Your task to perform on an android device: delete browsing data in the chrome app Image 0: 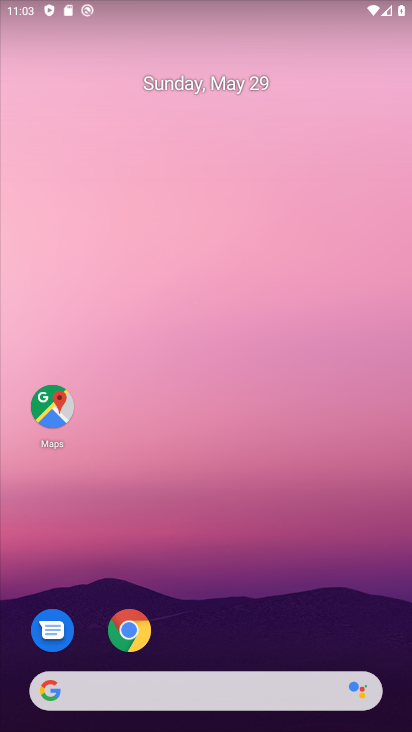
Step 0: click (123, 640)
Your task to perform on an android device: delete browsing data in the chrome app Image 1: 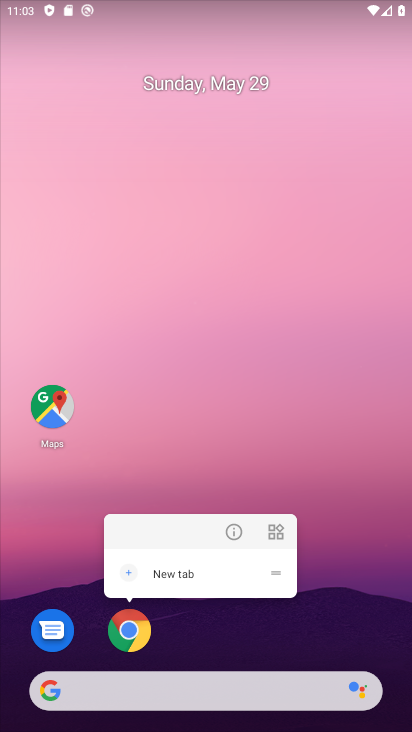
Step 1: click (111, 652)
Your task to perform on an android device: delete browsing data in the chrome app Image 2: 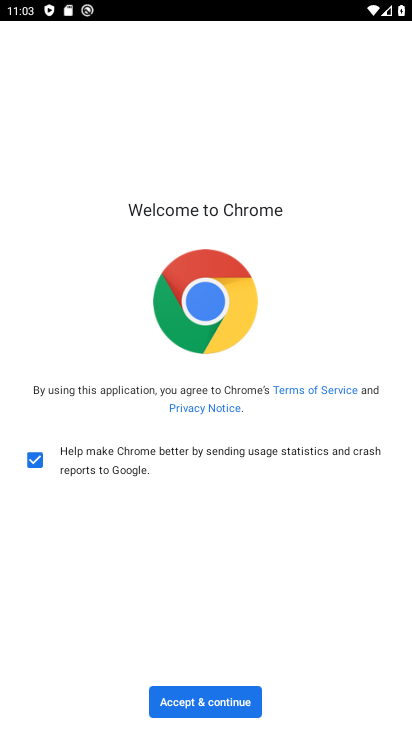
Step 2: click (219, 713)
Your task to perform on an android device: delete browsing data in the chrome app Image 3: 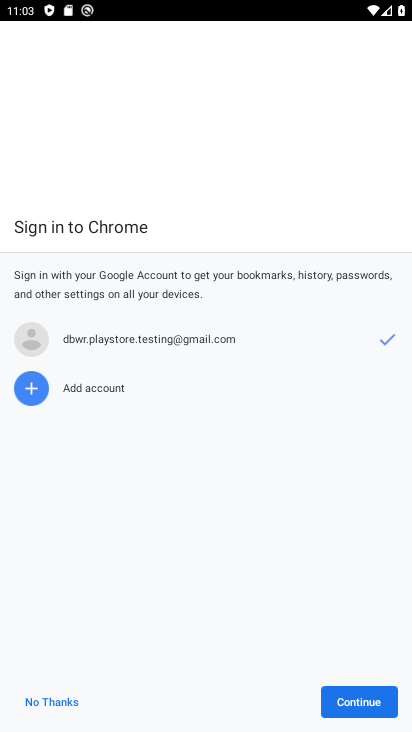
Step 3: click (360, 701)
Your task to perform on an android device: delete browsing data in the chrome app Image 4: 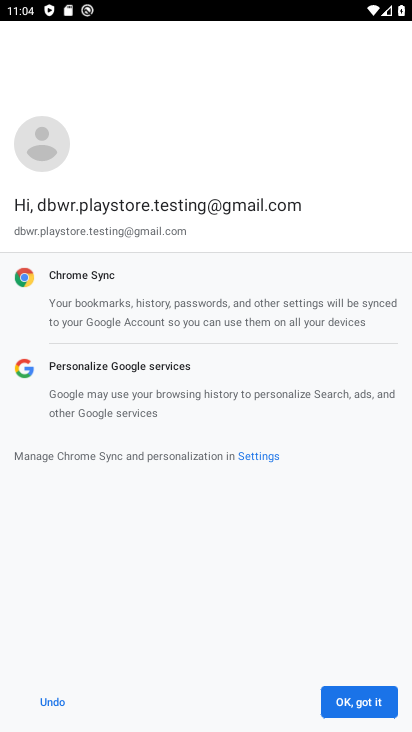
Step 4: click (360, 701)
Your task to perform on an android device: delete browsing data in the chrome app Image 5: 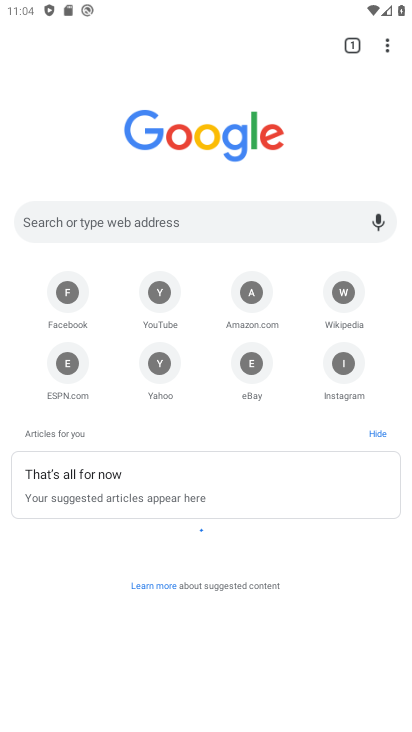
Step 5: click (388, 40)
Your task to perform on an android device: delete browsing data in the chrome app Image 6: 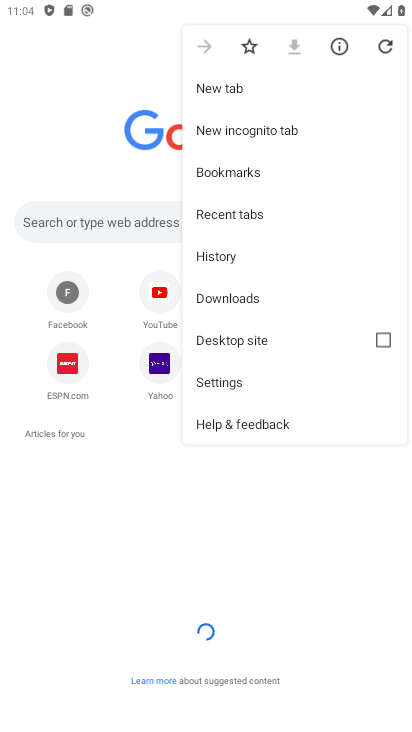
Step 6: click (240, 390)
Your task to perform on an android device: delete browsing data in the chrome app Image 7: 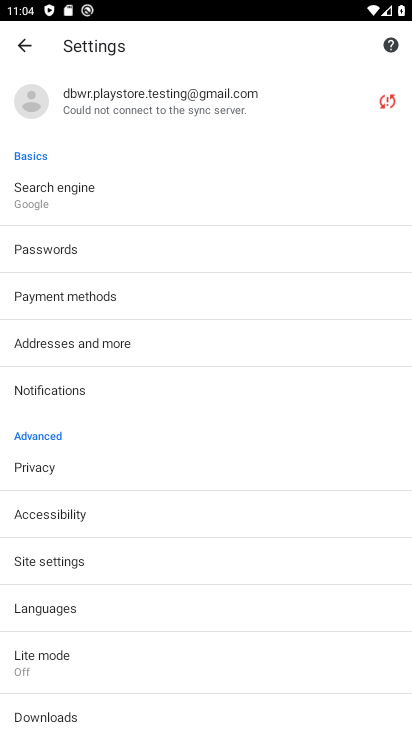
Step 7: click (48, 468)
Your task to perform on an android device: delete browsing data in the chrome app Image 8: 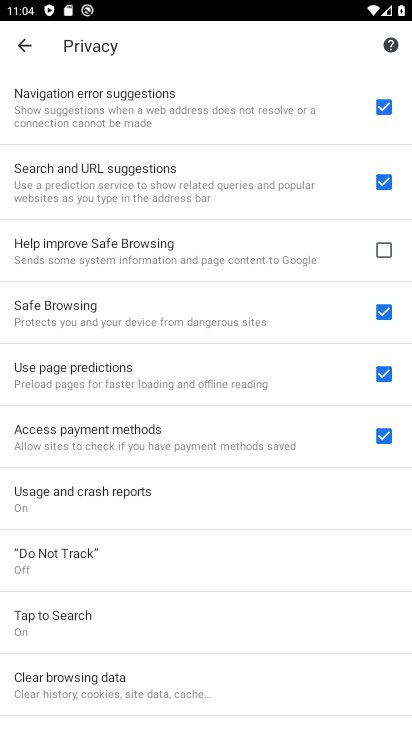
Step 8: click (158, 691)
Your task to perform on an android device: delete browsing data in the chrome app Image 9: 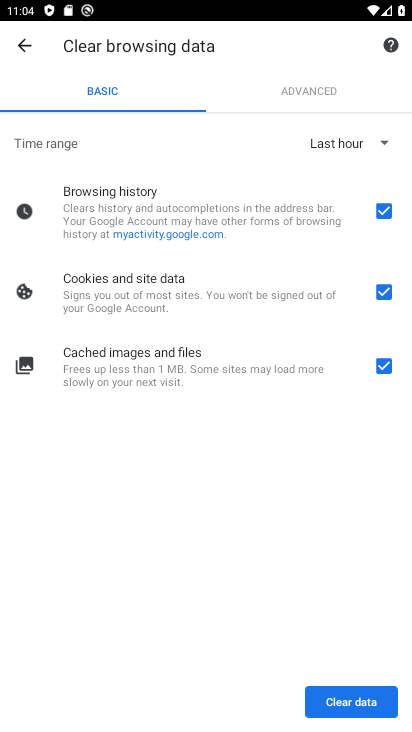
Step 9: click (391, 291)
Your task to perform on an android device: delete browsing data in the chrome app Image 10: 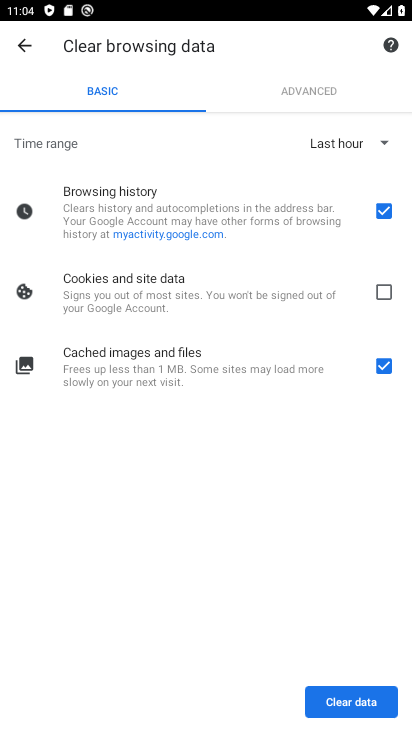
Step 10: click (388, 372)
Your task to perform on an android device: delete browsing data in the chrome app Image 11: 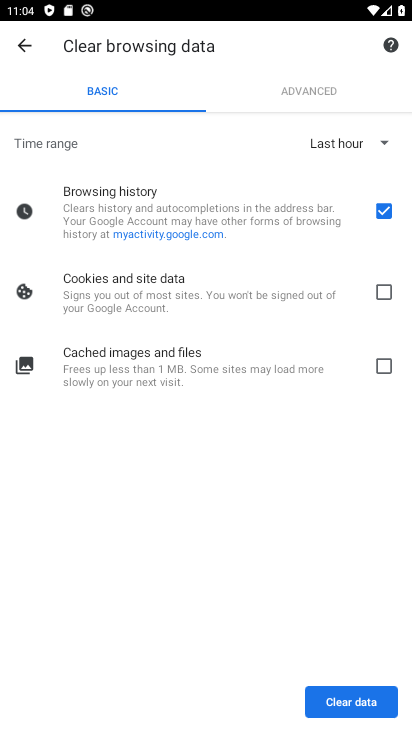
Step 11: click (385, 147)
Your task to perform on an android device: delete browsing data in the chrome app Image 12: 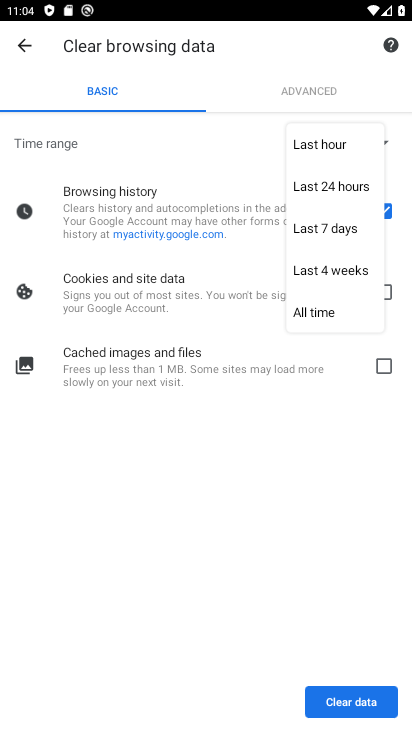
Step 12: click (301, 309)
Your task to perform on an android device: delete browsing data in the chrome app Image 13: 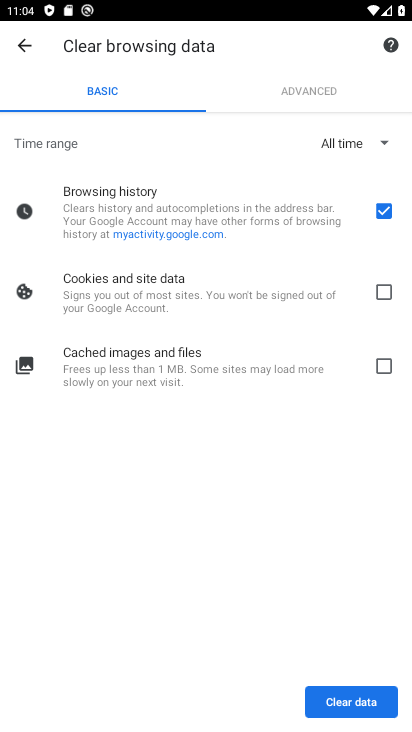
Step 13: click (367, 706)
Your task to perform on an android device: delete browsing data in the chrome app Image 14: 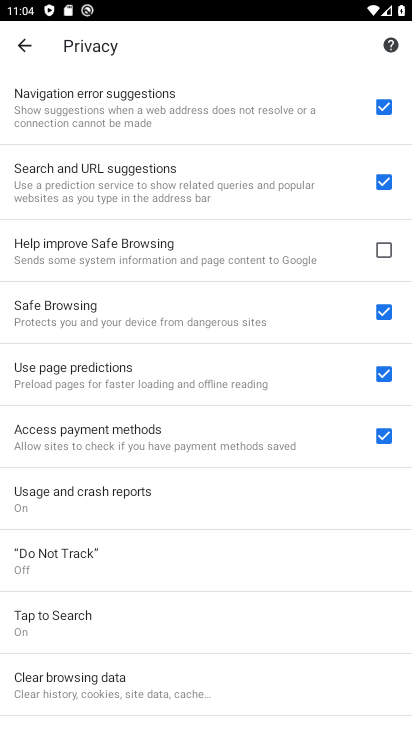
Step 14: task complete